Your task to perform on an android device: allow notifications from all sites in the chrome app Image 0: 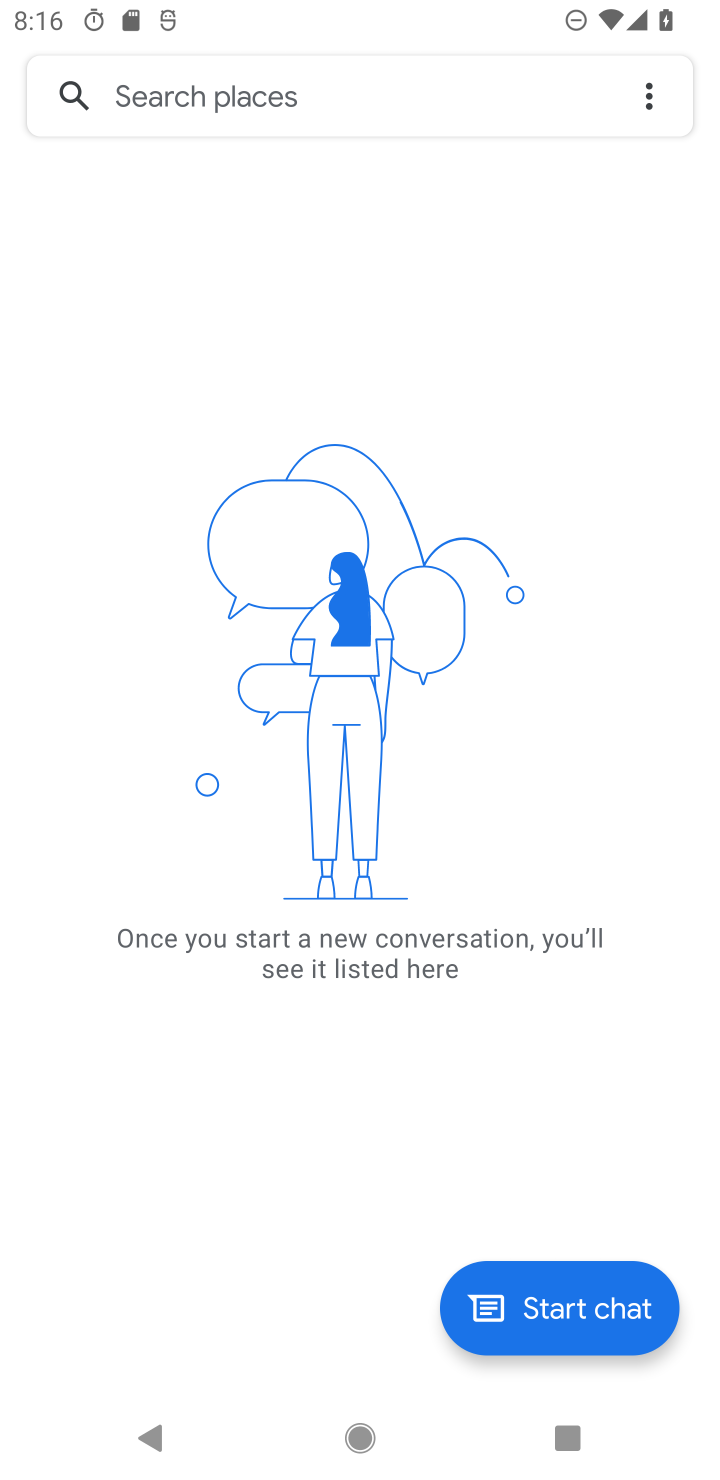
Step 0: press home button
Your task to perform on an android device: allow notifications from all sites in the chrome app Image 1: 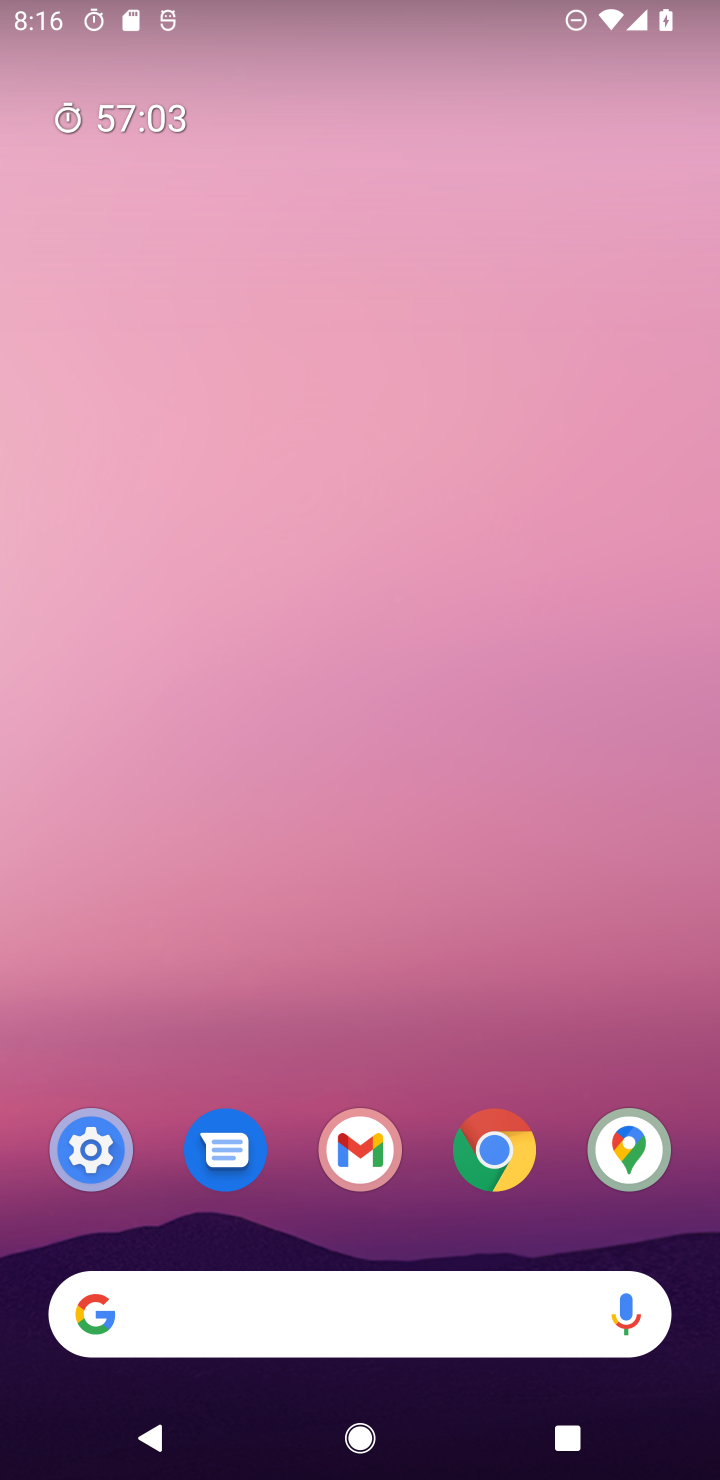
Step 1: drag from (400, 1245) to (494, 2)
Your task to perform on an android device: allow notifications from all sites in the chrome app Image 2: 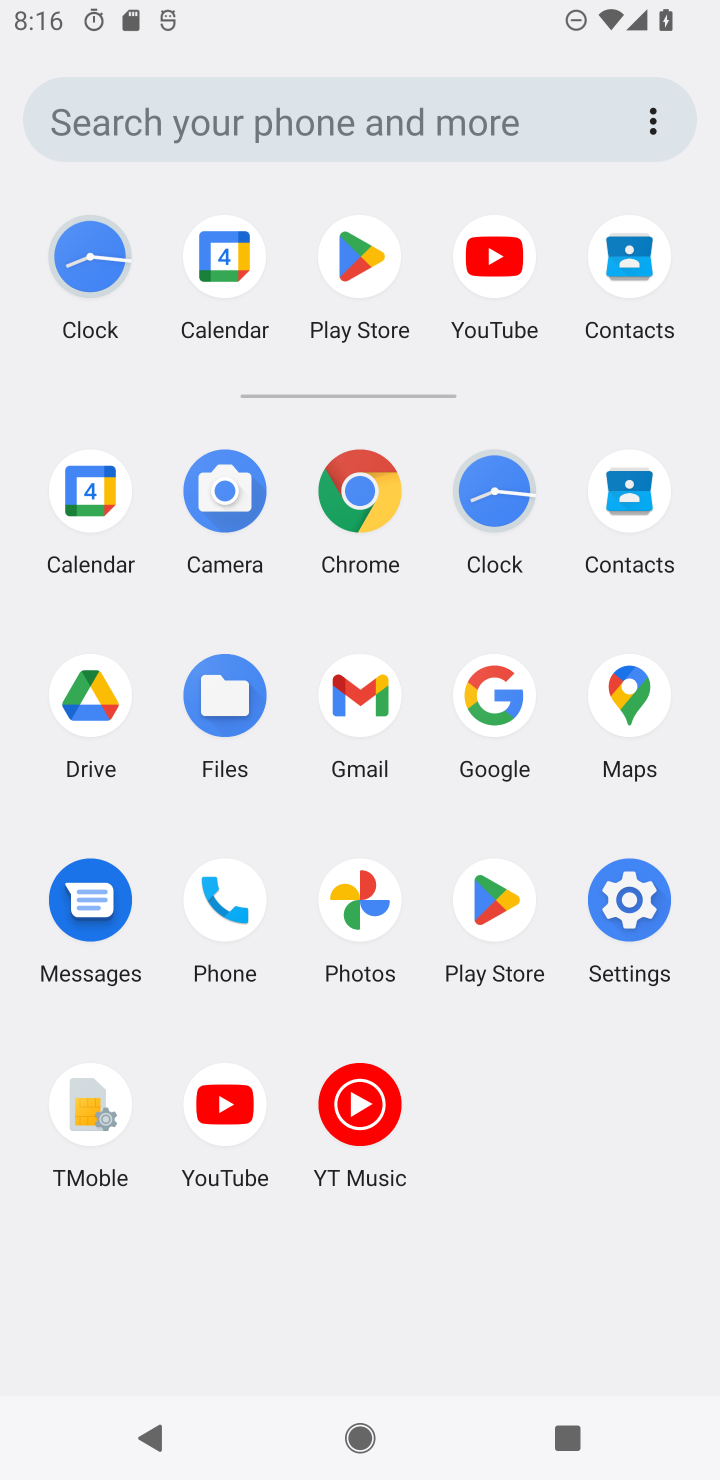
Step 2: click (349, 503)
Your task to perform on an android device: allow notifications from all sites in the chrome app Image 3: 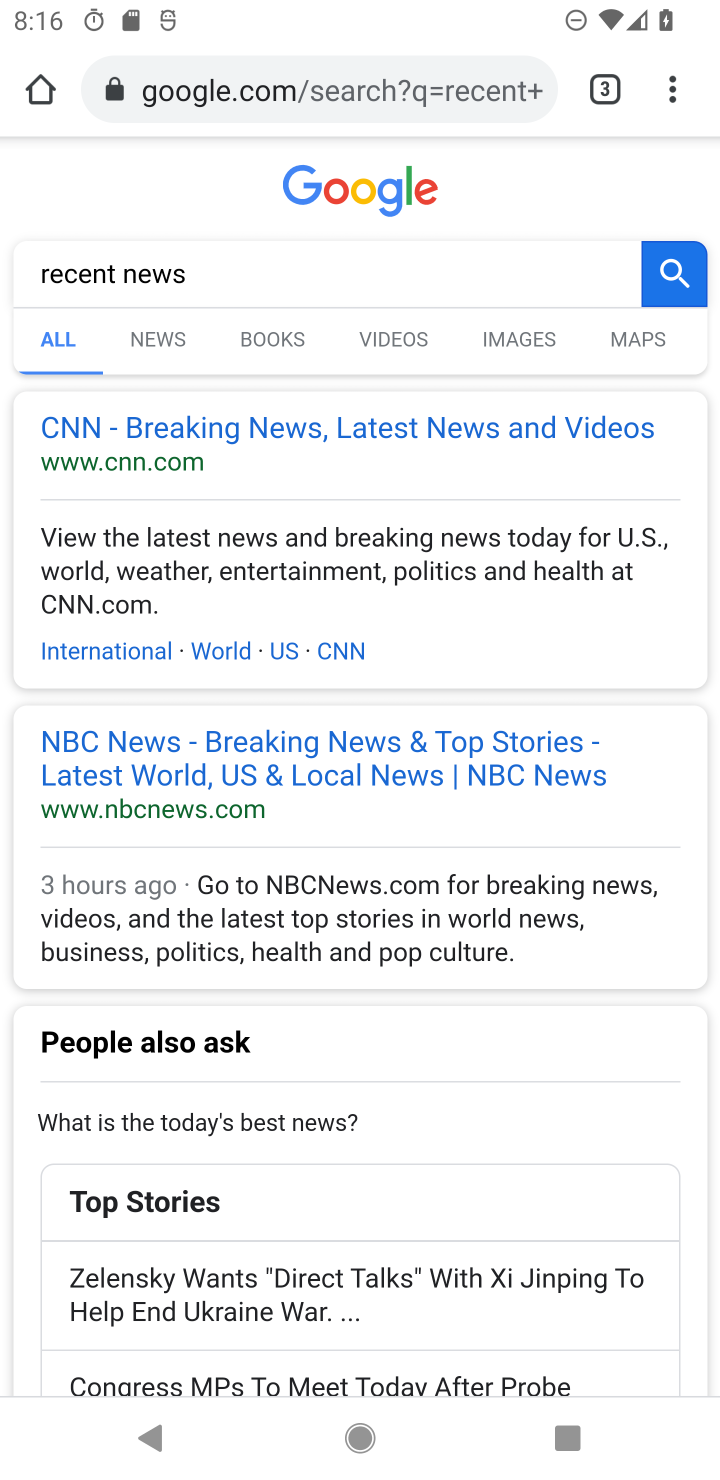
Step 3: drag from (670, 88) to (458, 1229)
Your task to perform on an android device: allow notifications from all sites in the chrome app Image 4: 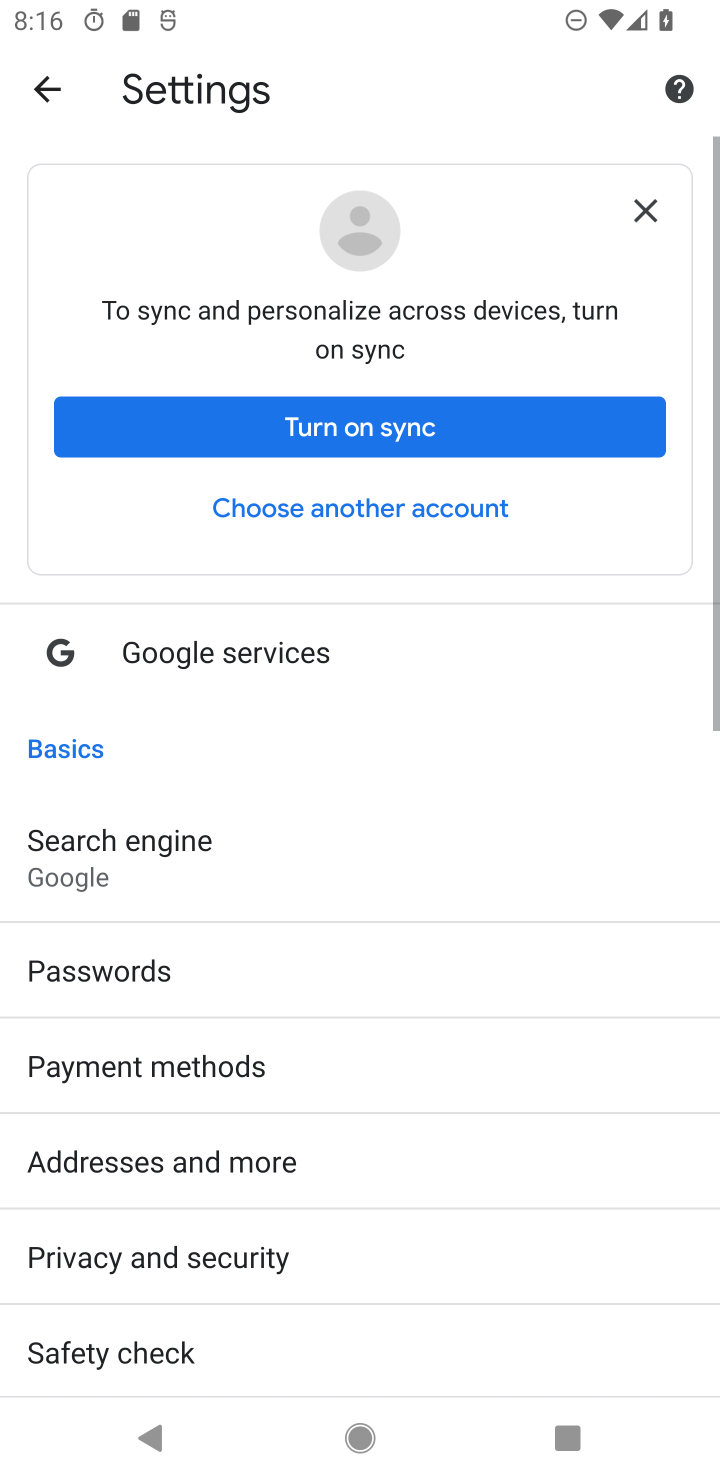
Step 4: drag from (437, 1205) to (614, 0)
Your task to perform on an android device: allow notifications from all sites in the chrome app Image 5: 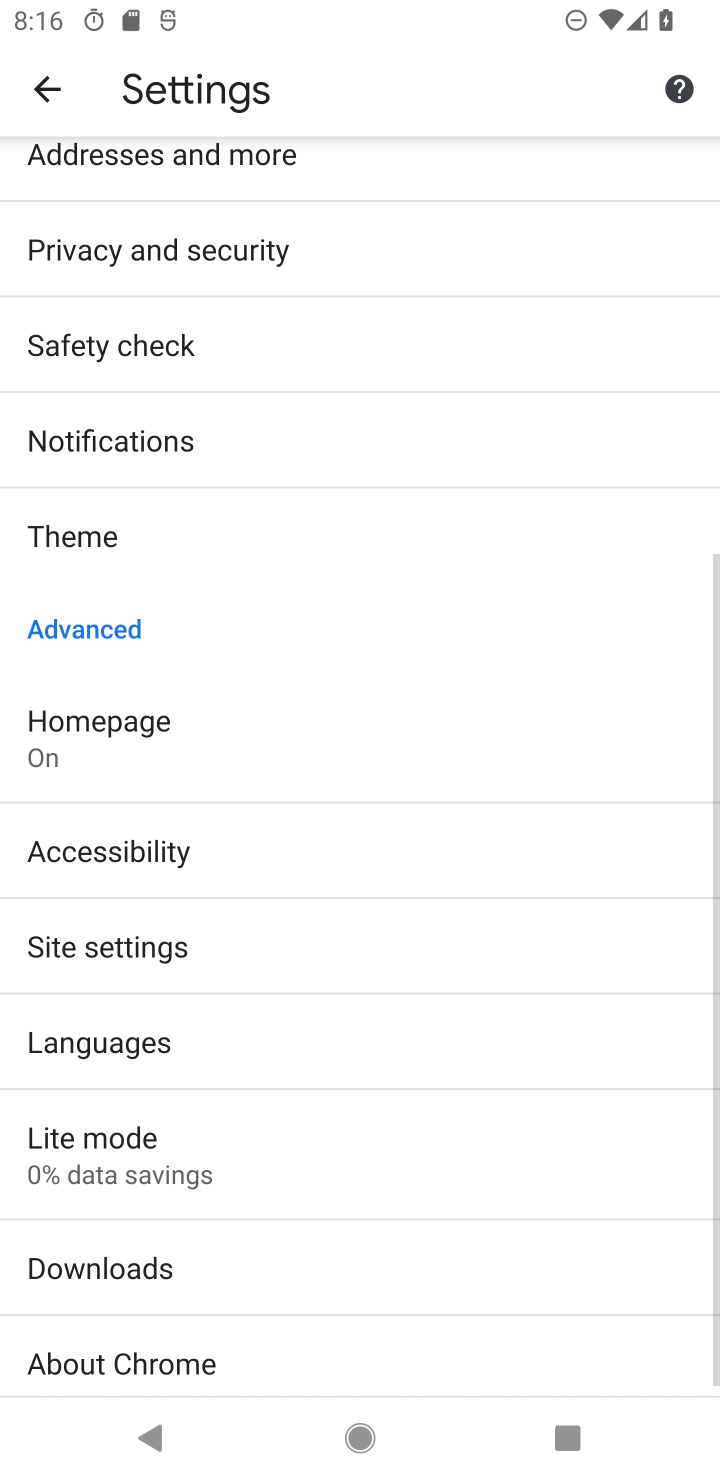
Step 5: click (261, 989)
Your task to perform on an android device: allow notifications from all sites in the chrome app Image 6: 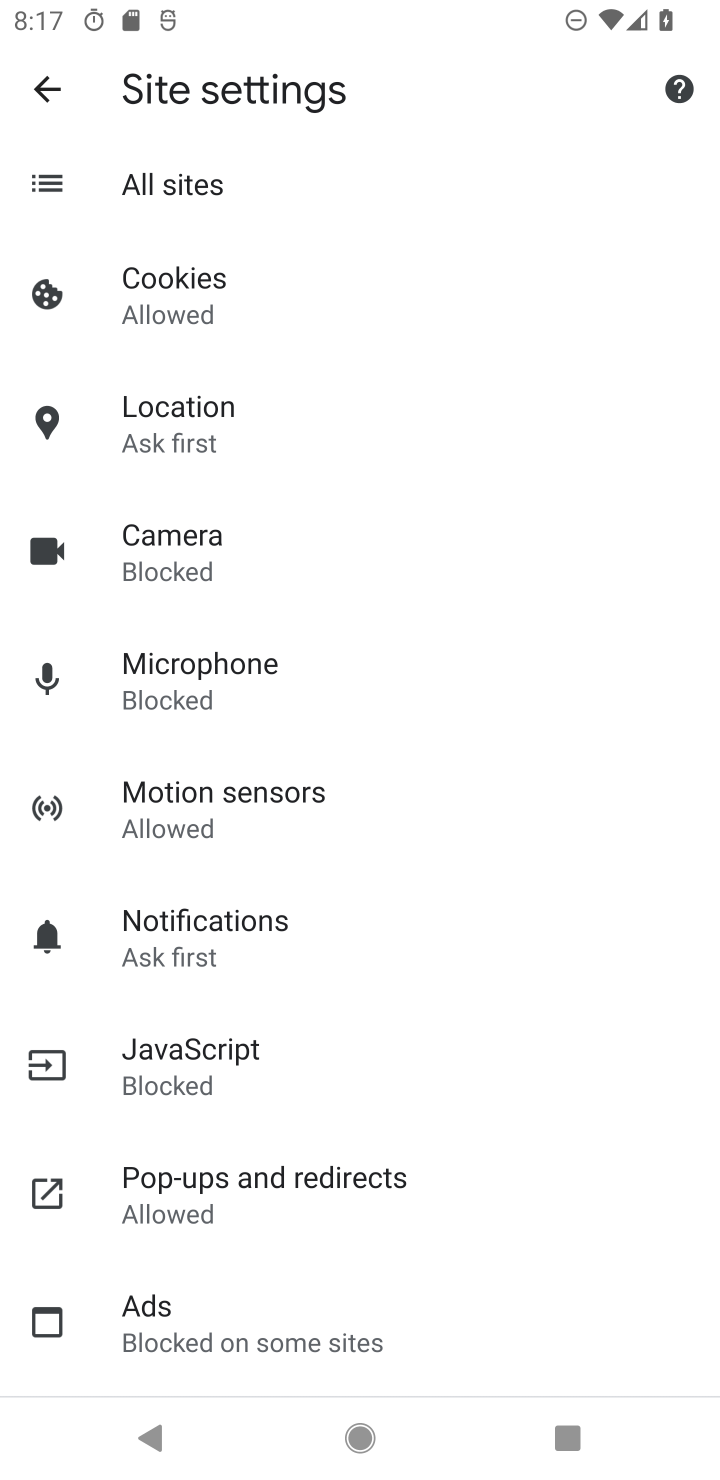
Step 6: task complete